Your task to perform on an android device: open chrome and create a bookmark for the current page Image 0: 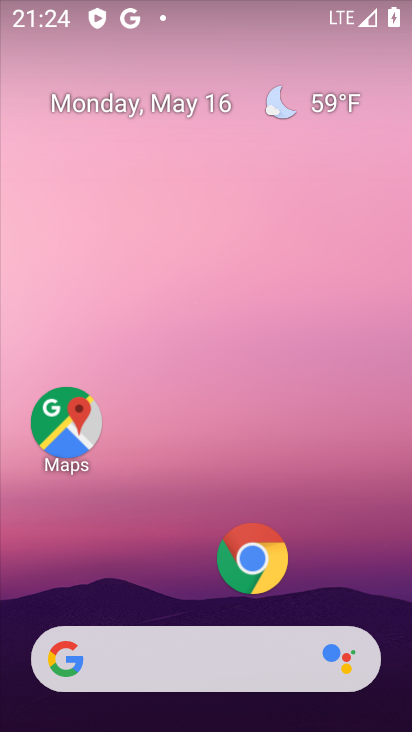
Step 0: click (255, 559)
Your task to perform on an android device: open chrome and create a bookmark for the current page Image 1: 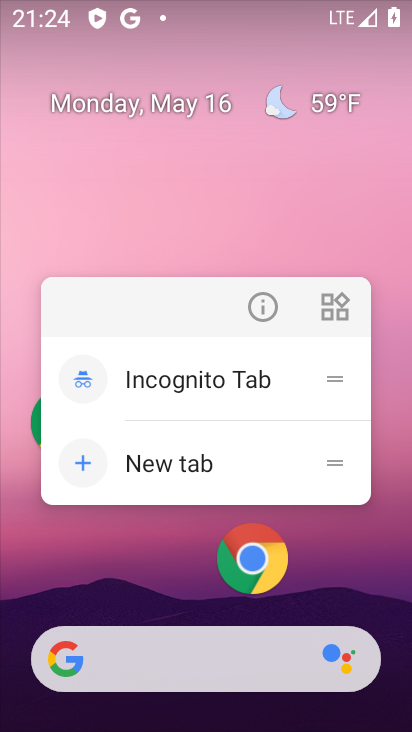
Step 1: click (249, 550)
Your task to perform on an android device: open chrome and create a bookmark for the current page Image 2: 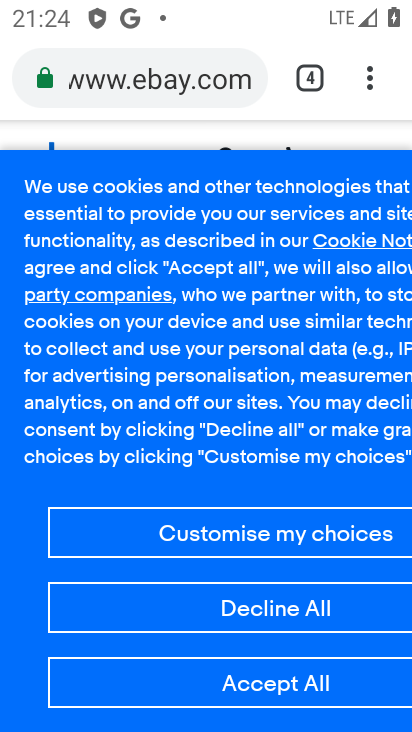
Step 2: click (296, 77)
Your task to perform on an android device: open chrome and create a bookmark for the current page Image 3: 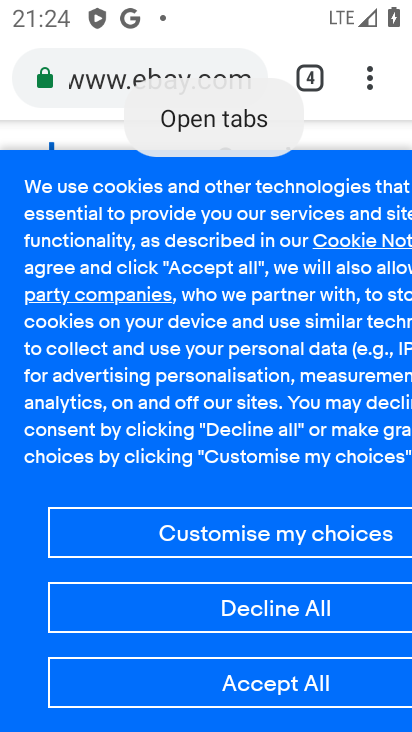
Step 3: click (341, 81)
Your task to perform on an android device: open chrome and create a bookmark for the current page Image 4: 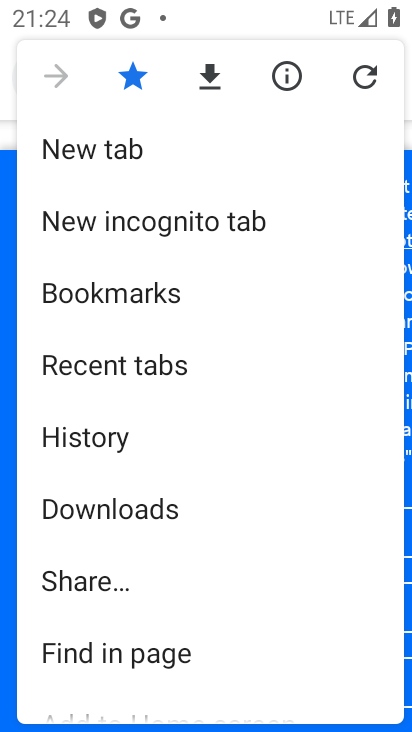
Step 4: click (130, 73)
Your task to perform on an android device: open chrome and create a bookmark for the current page Image 5: 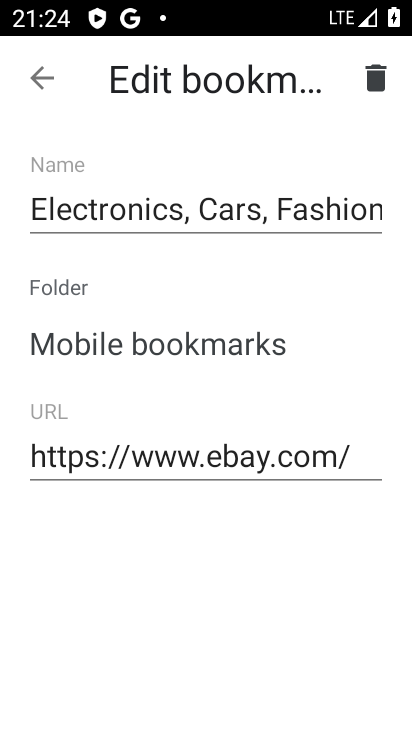
Step 5: task complete